Your task to perform on an android device: visit the assistant section in the google photos Image 0: 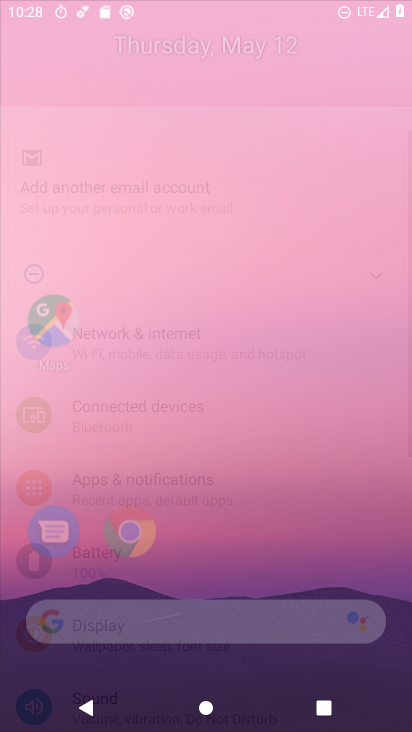
Step 0: drag from (194, 660) to (272, 184)
Your task to perform on an android device: visit the assistant section in the google photos Image 1: 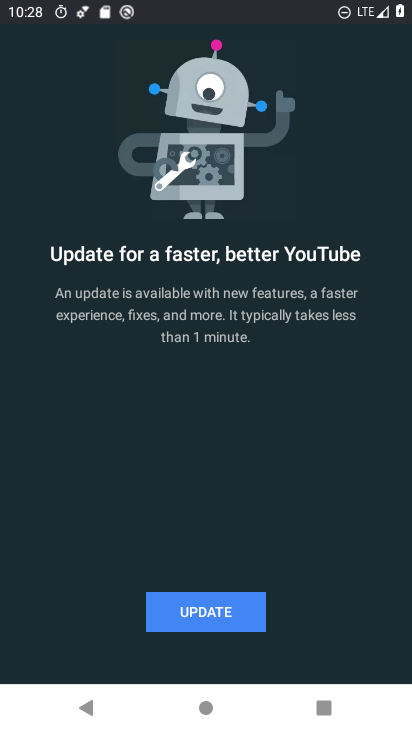
Step 1: press home button
Your task to perform on an android device: visit the assistant section in the google photos Image 2: 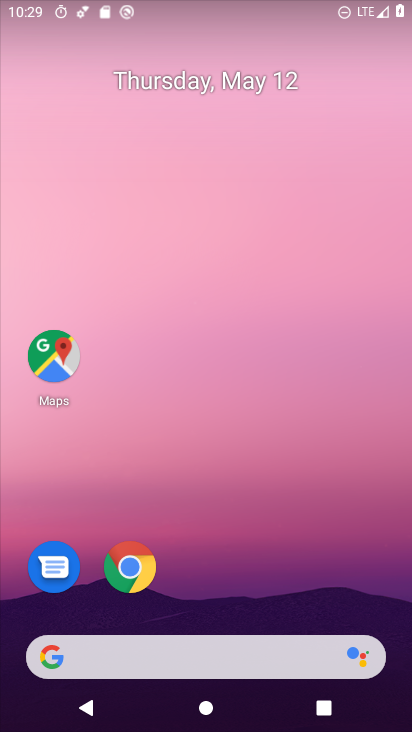
Step 2: drag from (184, 605) to (240, 202)
Your task to perform on an android device: visit the assistant section in the google photos Image 3: 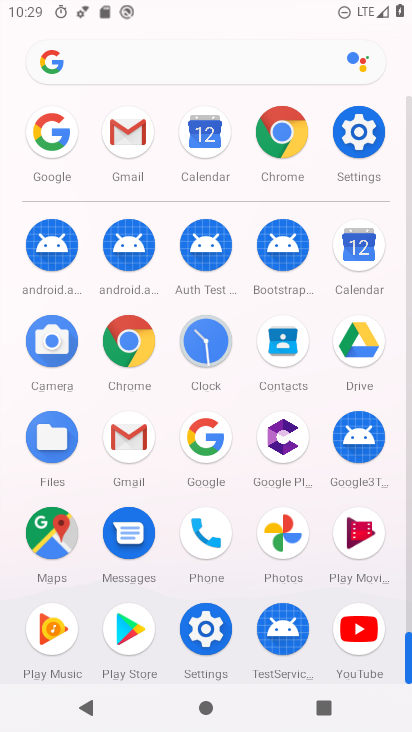
Step 3: click (295, 530)
Your task to perform on an android device: visit the assistant section in the google photos Image 4: 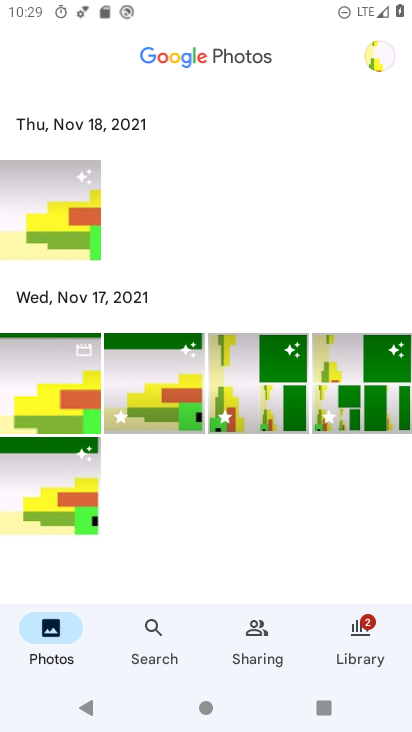
Step 4: click (385, 56)
Your task to perform on an android device: visit the assistant section in the google photos Image 5: 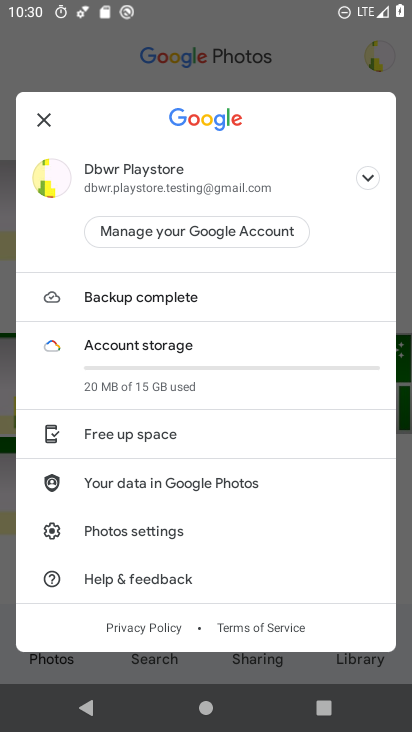
Step 5: click (173, 536)
Your task to perform on an android device: visit the assistant section in the google photos Image 6: 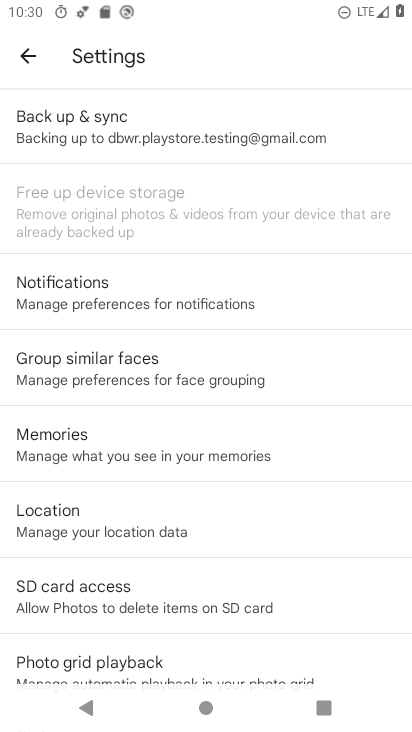
Step 6: task complete